Your task to perform on an android device: clear all cookies in the chrome app Image 0: 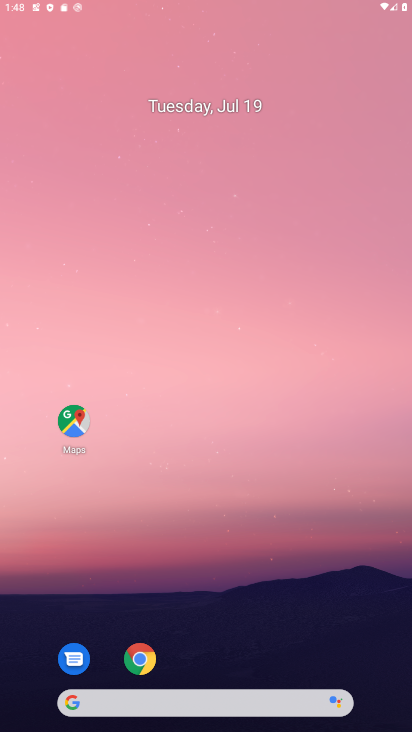
Step 0: press home button
Your task to perform on an android device: clear all cookies in the chrome app Image 1: 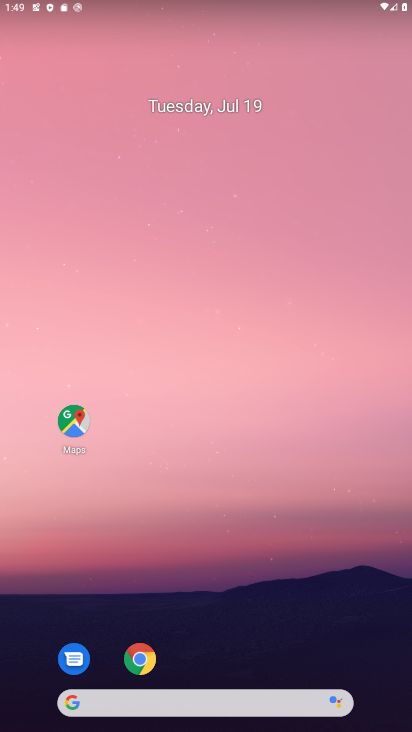
Step 1: drag from (235, 683) to (199, 148)
Your task to perform on an android device: clear all cookies in the chrome app Image 2: 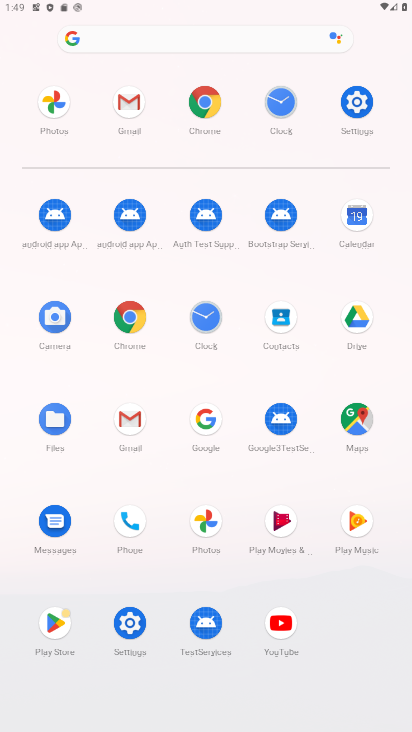
Step 2: click (141, 327)
Your task to perform on an android device: clear all cookies in the chrome app Image 3: 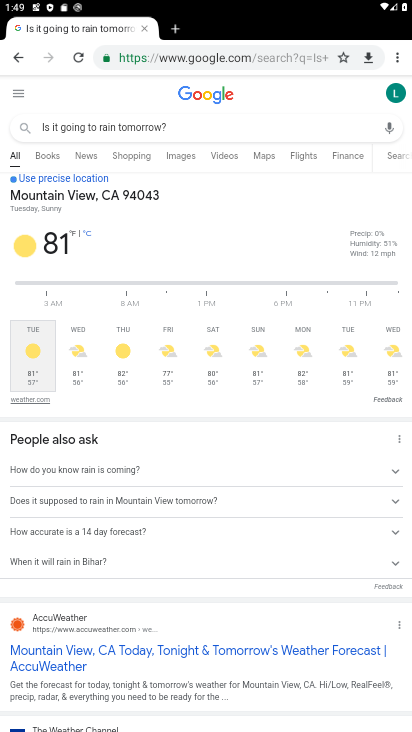
Step 3: drag from (403, 54) to (272, 404)
Your task to perform on an android device: clear all cookies in the chrome app Image 4: 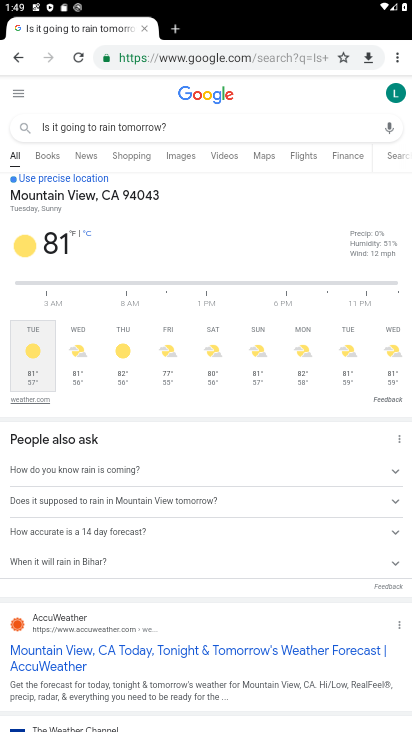
Step 4: press back button
Your task to perform on an android device: clear all cookies in the chrome app Image 5: 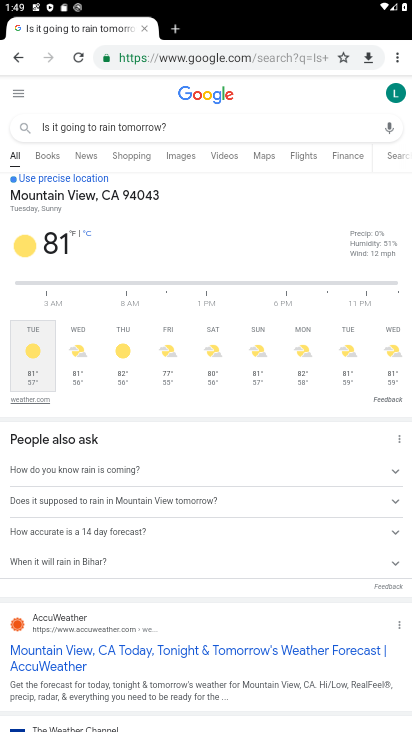
Step 5: drag from (401, 53) to (254, 382)
Your task to perform on an android device: clear all cookies in the chrome app Image 6: 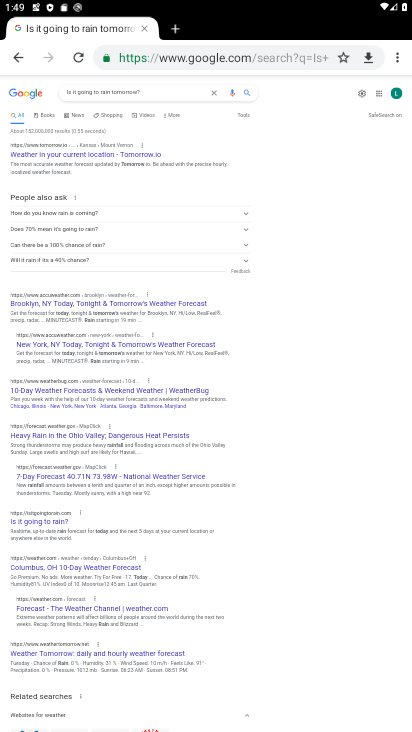
Step 6: drag from (399, 50) to (304, 405)
Your task to perform on an android device: clear all cookies in the chrome app Image 7: 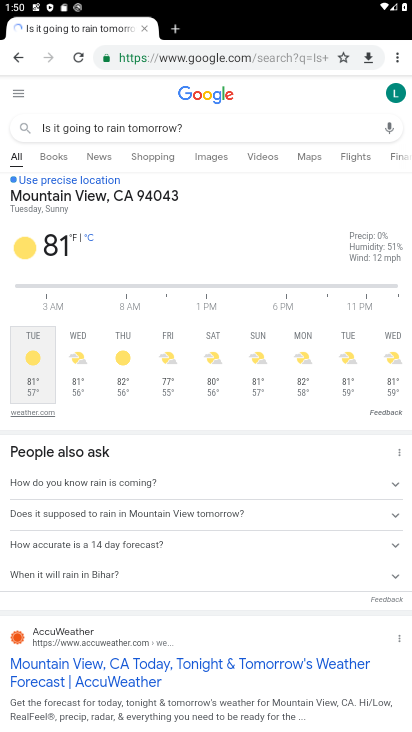
Step 7: drag from (402, 56) to (272, 407)
Your task to perform on an android device: clear all cookies in the chrome app Image 8: 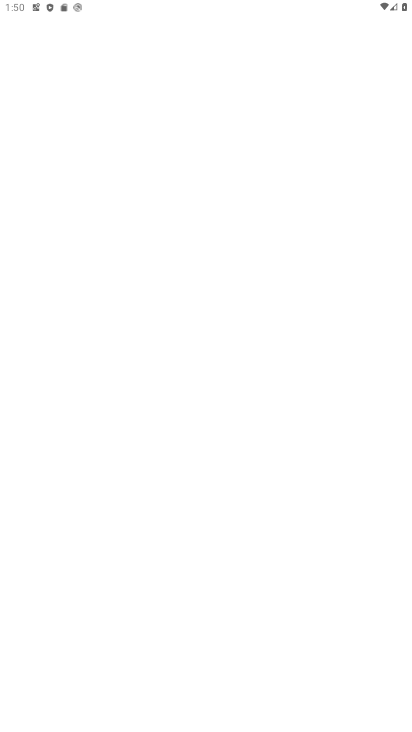
Step 8: press back button
Your task to perform on an android device: clear all cookies in the chrome app Image 9: 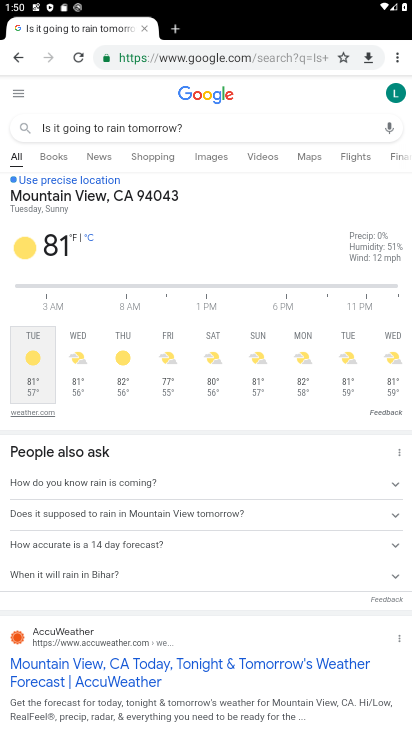
Step 9: drag from (407, 62) to (310, 393)
Your task to perform on an android device: clear all cookies in the chrome app Image 10: 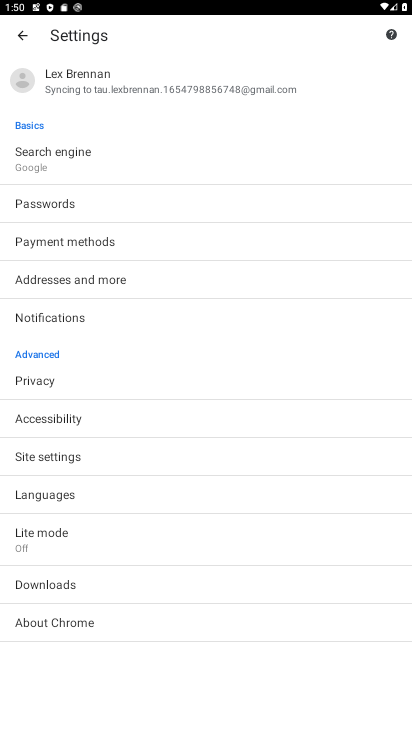
Step 10: click (65, 377)
Your task to perform on an android device: clear all cookies in the chrome app Image 11: 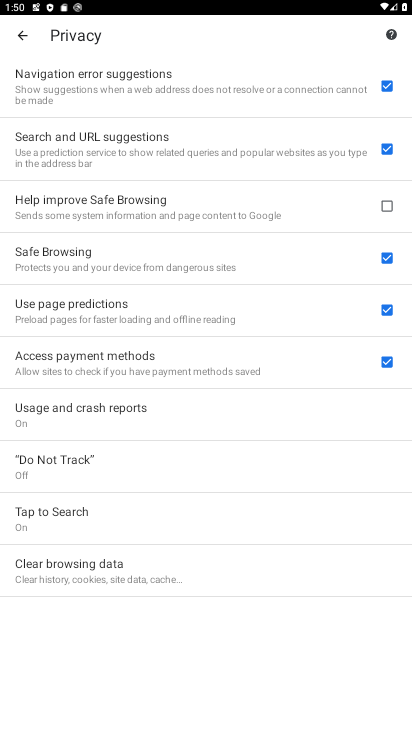
Step 11: click (35, 566)
Your task to perform on an android device: clear all cookies in the chrome app Image 12: 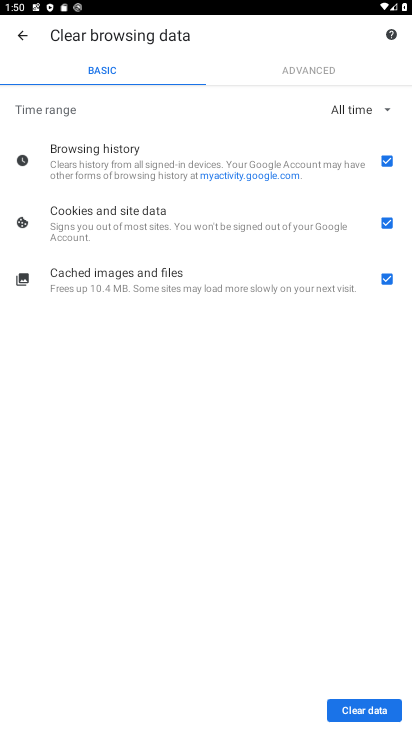
Step 12: click (338, 717)
Your task to perform on an android device: clear all cookies in the chrome app Image 13: 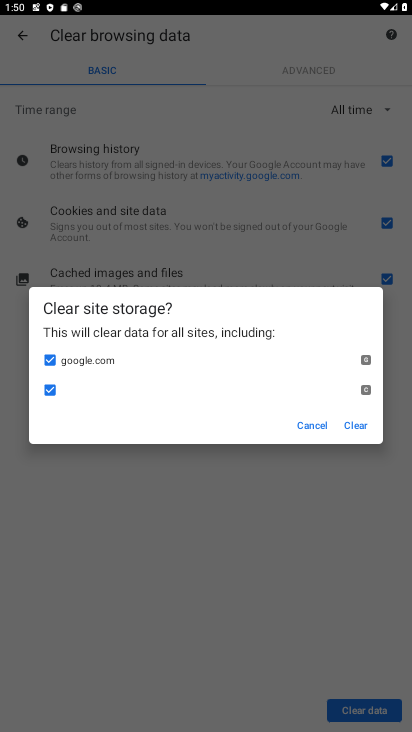
Step 13: click (356, 428)
Your task to perform on an android device: clear all cookies in the chrome app Image 14: 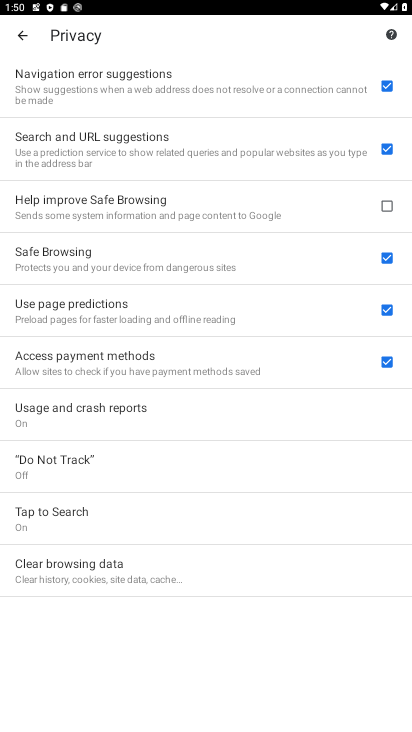
Step 14: task complete